Your task to perform on an android device: What is the recent news? Image 0: 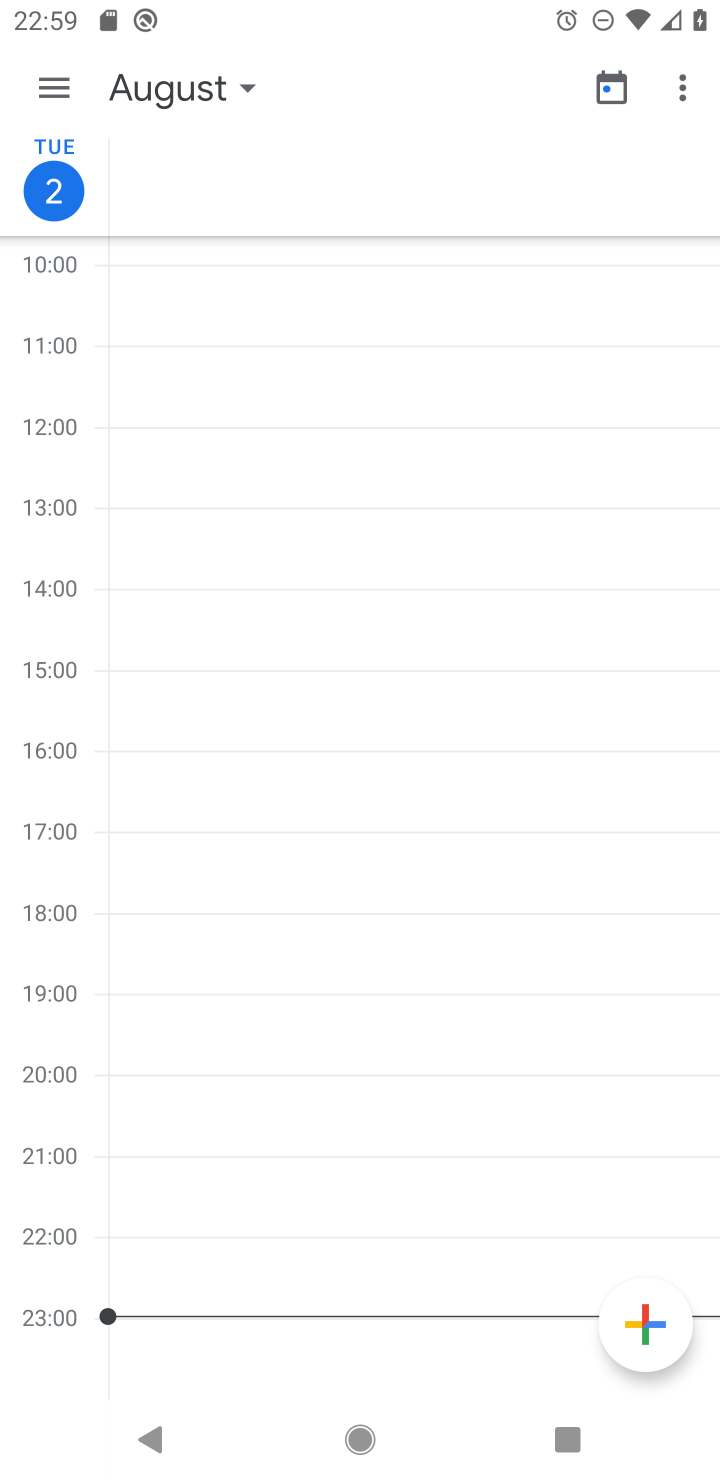
Step 0: press home button
Your task to perform on an android device: What is the recent news? Image 1: 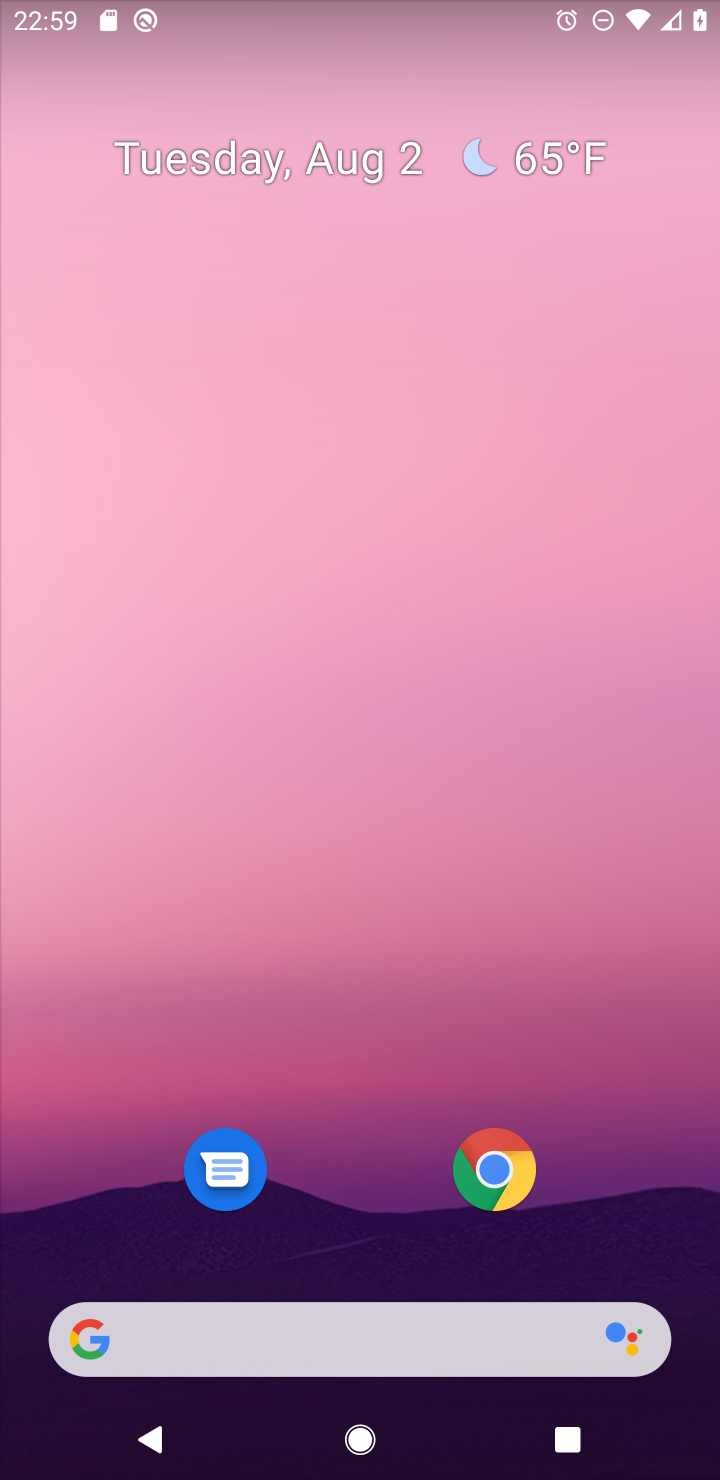
Step 1: task complete